Your task to perform on an android device: turn smart compose on in the gmail app Image 0: 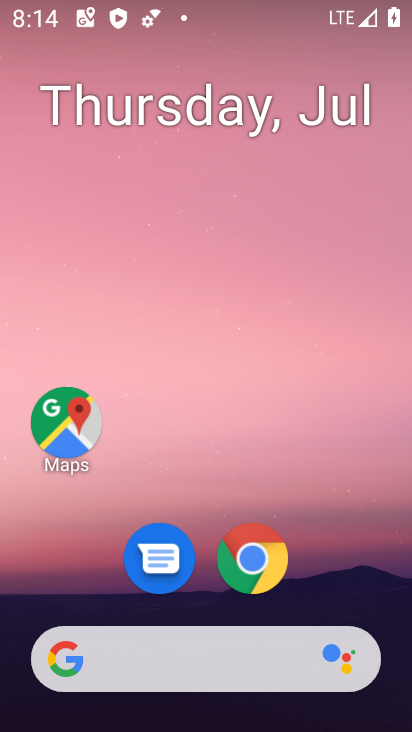
Step 0: press home button
Your task to perform on an android device: turn smart compose on in the gmail app Image 1: 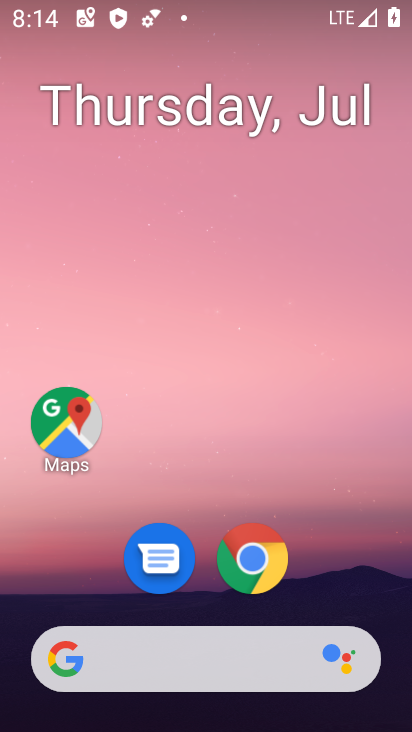
Step 1: drag from (240, 648) to (298, 38)
Your task to perform on an android device: turn smart compose on in the gmail app Image 2: 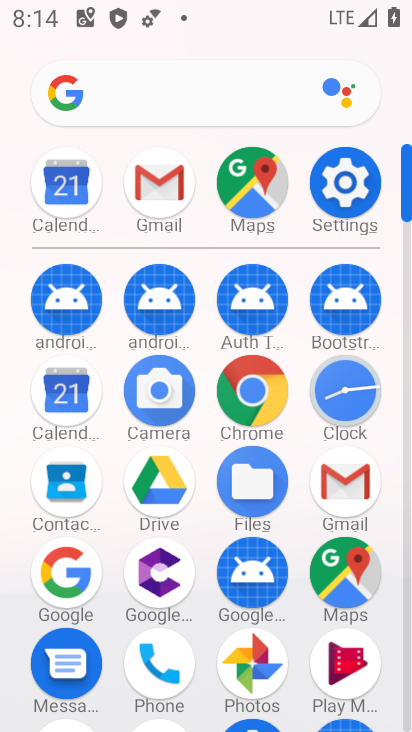
Step 2: click (343, 488)
Your task to perform on an android device: turn smart compose on in the gmail app Image 3: 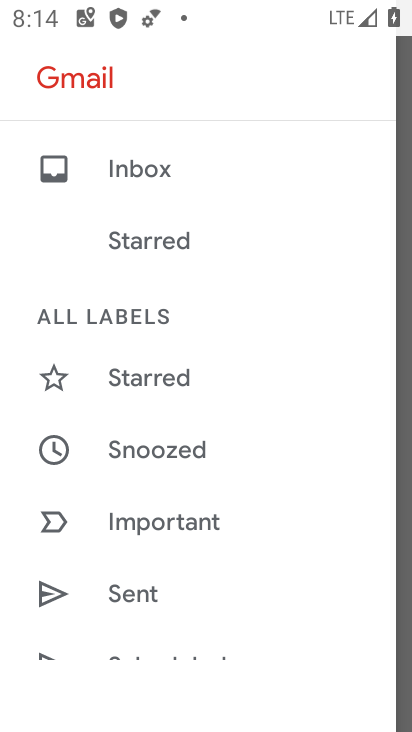
Step 3: drag from (175, 574) to (217, 159)
Your task to perform on an android device: turn smart compose on in the gmail app Image 4: 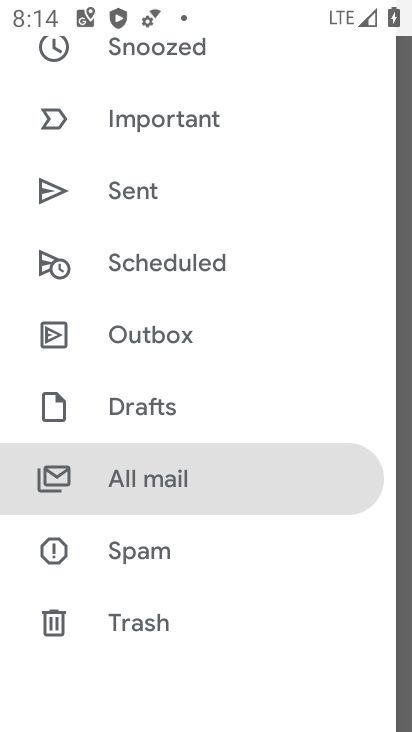
Step 4: drag from (171, 597) to (226, 217)
Your task to perform on an android device: turn smart compose on in the gmail app Image 5: 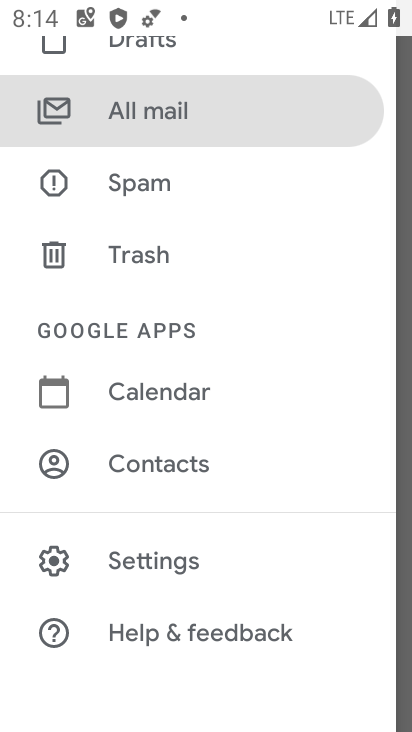
Step 5: click (130, 559)
Your task to perform on an android device: turn smart compose on in the gmail app Image 6: 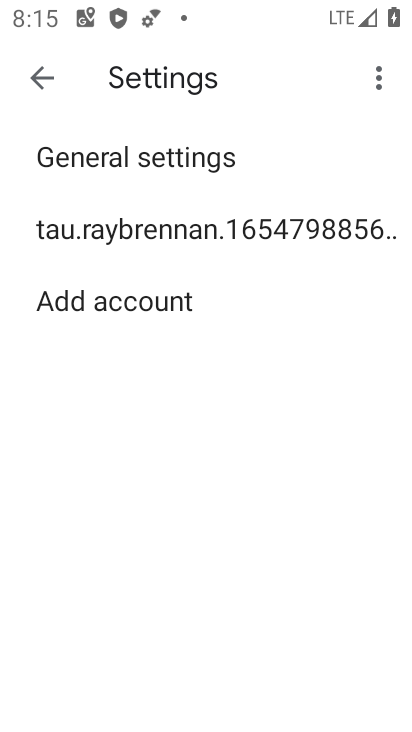
Step 6: click (190, 235)
Your task to perform on an android device: turn smart compose on in the gmail app Image 7: 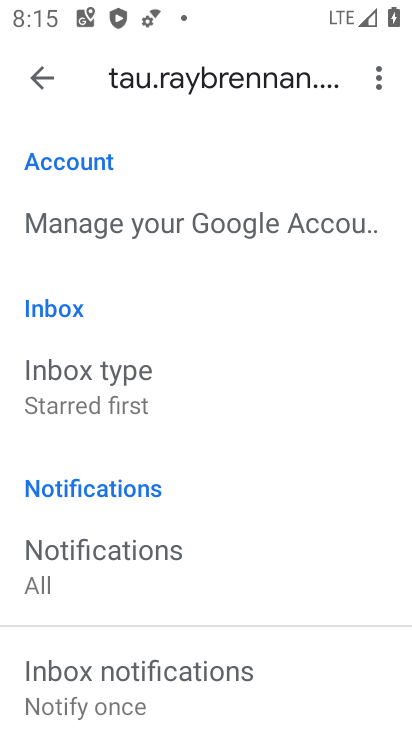
Step 7: task complete